Your task to perform on an android device: Open calendar and show me the second week of next month Image 0: 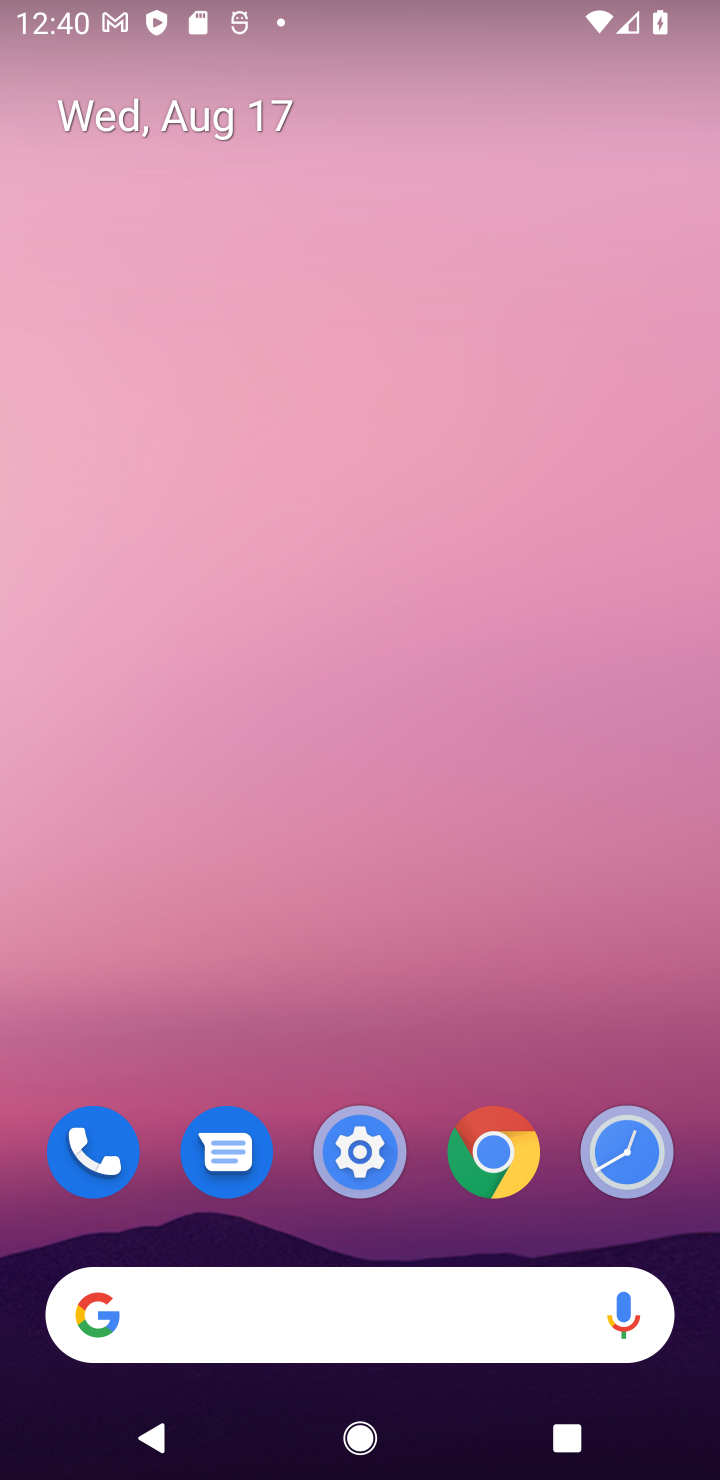
Step 0: drag from (683, 1235) to (383, 40)
Your task to perform on an android device: Open calendar and show me the second week of next month Image 1: 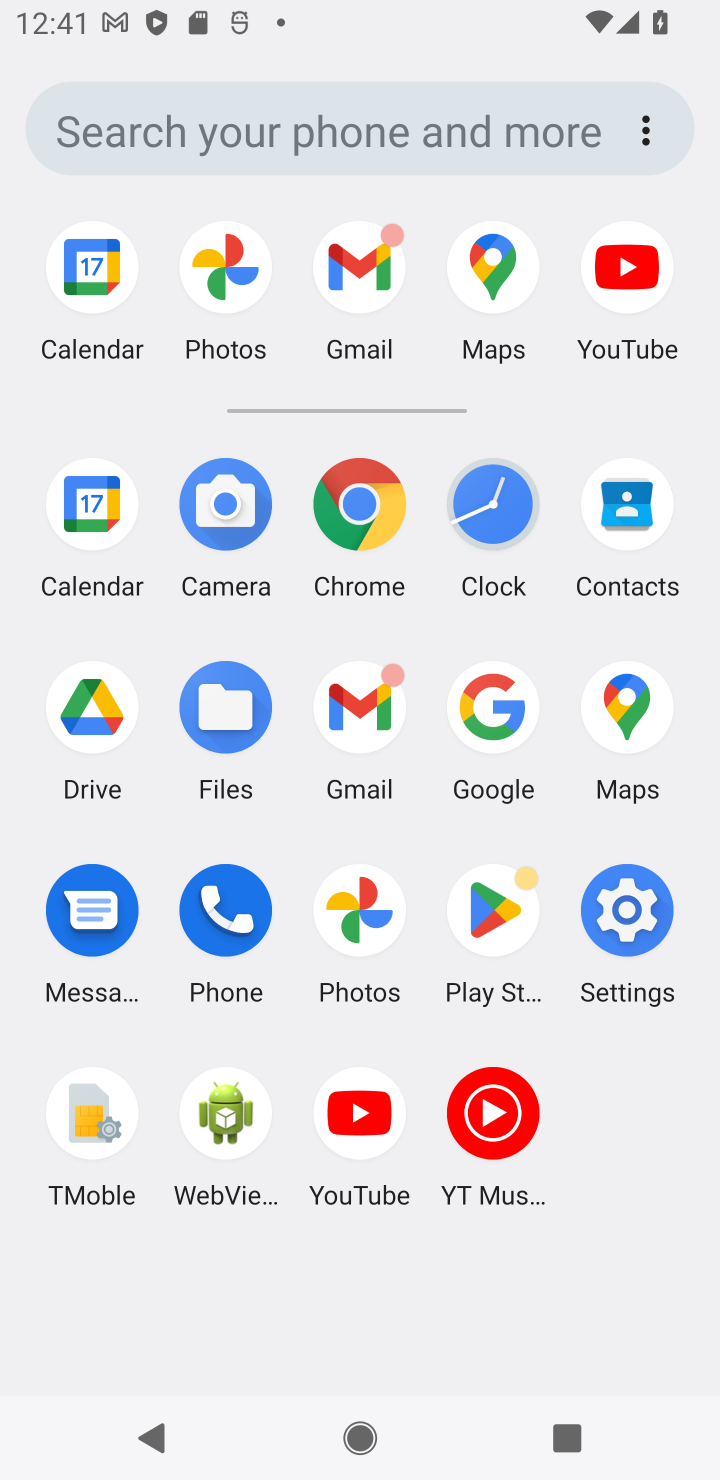
Step 1: click (77, 525)
Your task to perform on an android device: Open calendar and show me the second week of next month Image 2: 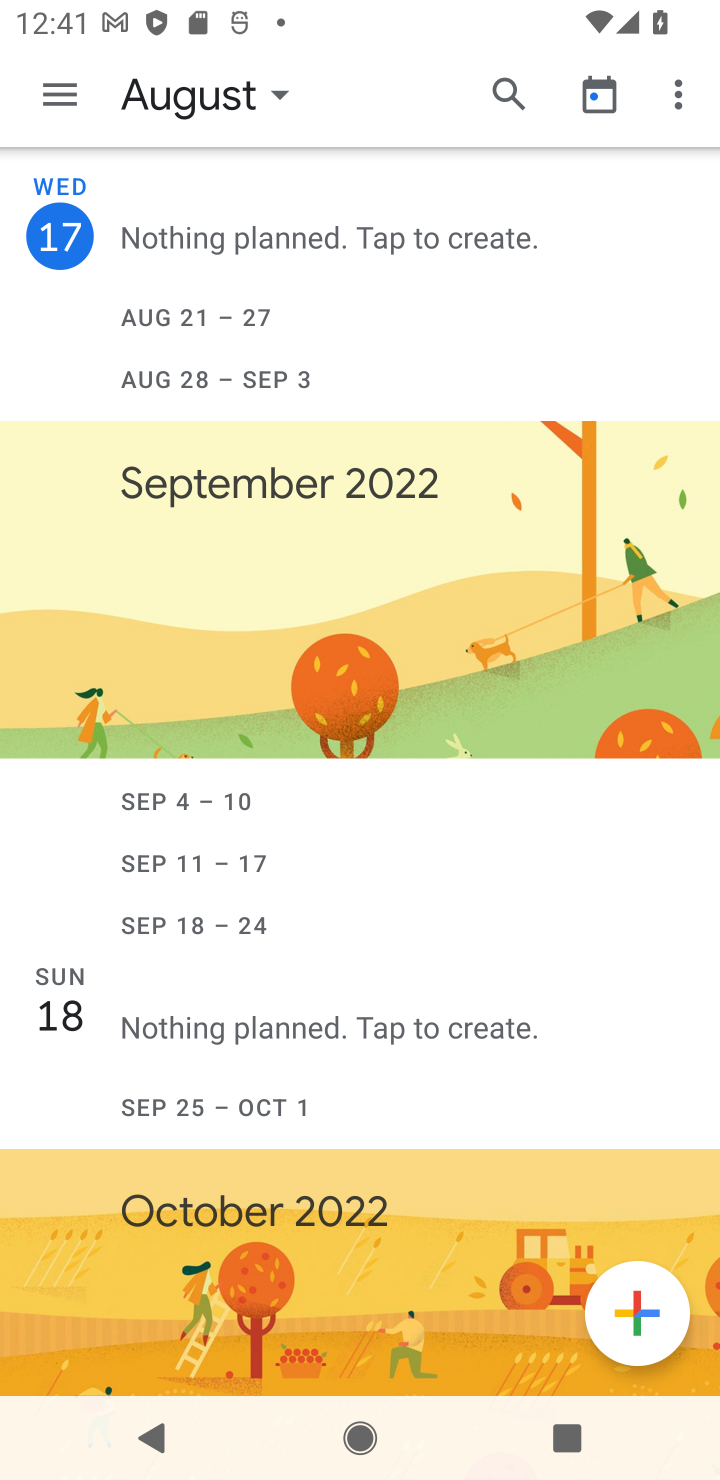
Step 2: click (188, 106)
Your task to perform on an android device: Open calendar and show me the second week of next month Image 3: 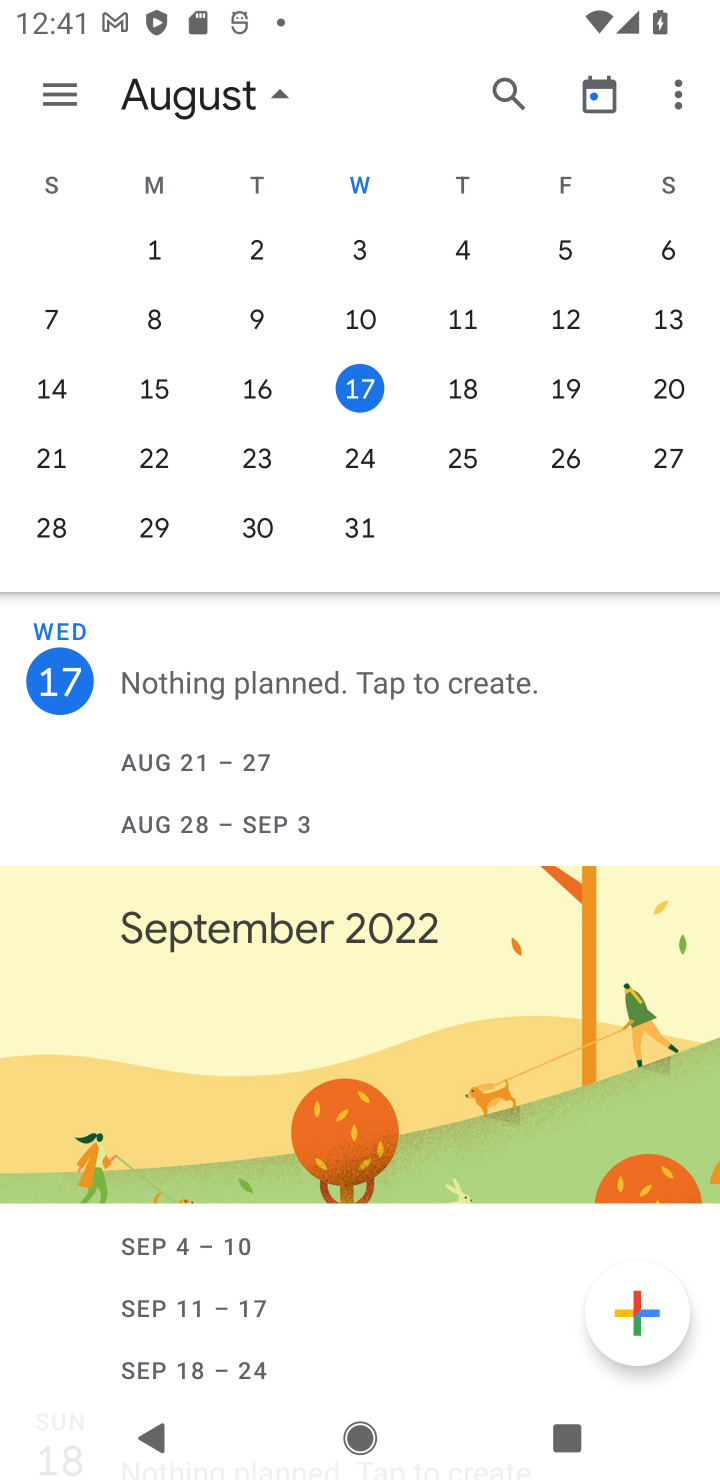
Step 3: drag from (655, 405) to (3, 421)
Your task to perform on an android device: Open calendar and show me the second week of next month Image 4: 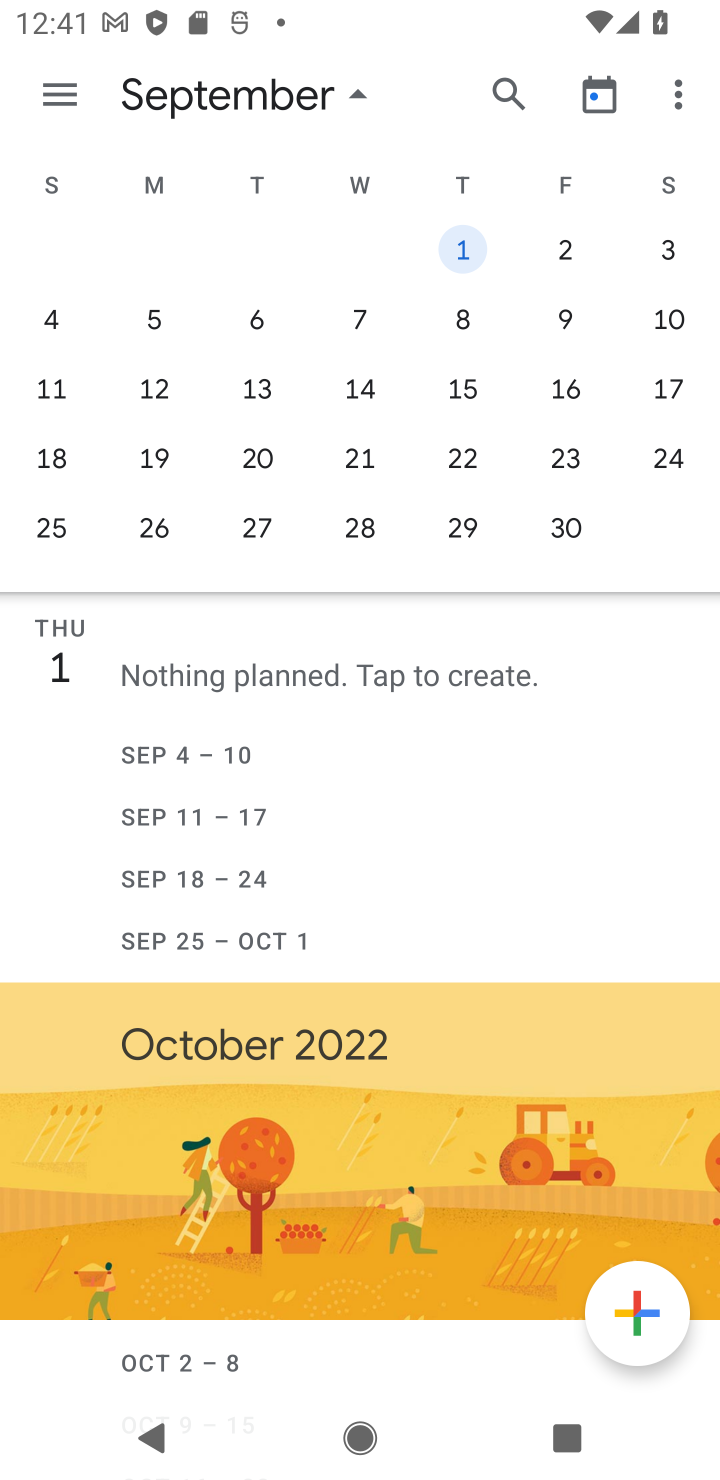
Step 4: click (54, 403)
Your task to perform on an android device: Open calendar and show me the second week of next month Image 5: 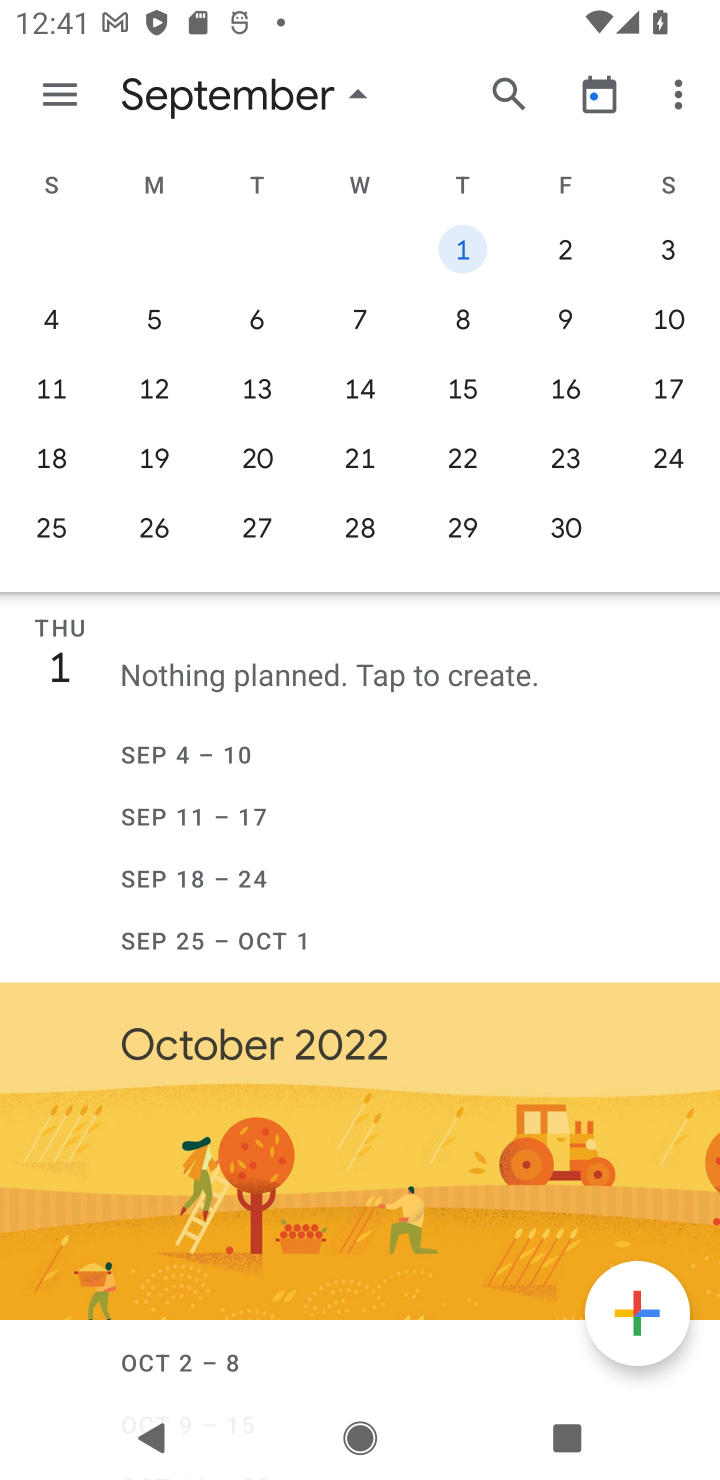
Step 5: click (42, 381)
Your task to perform on an android device: Open calendar and show me the second week of next month Image 6: 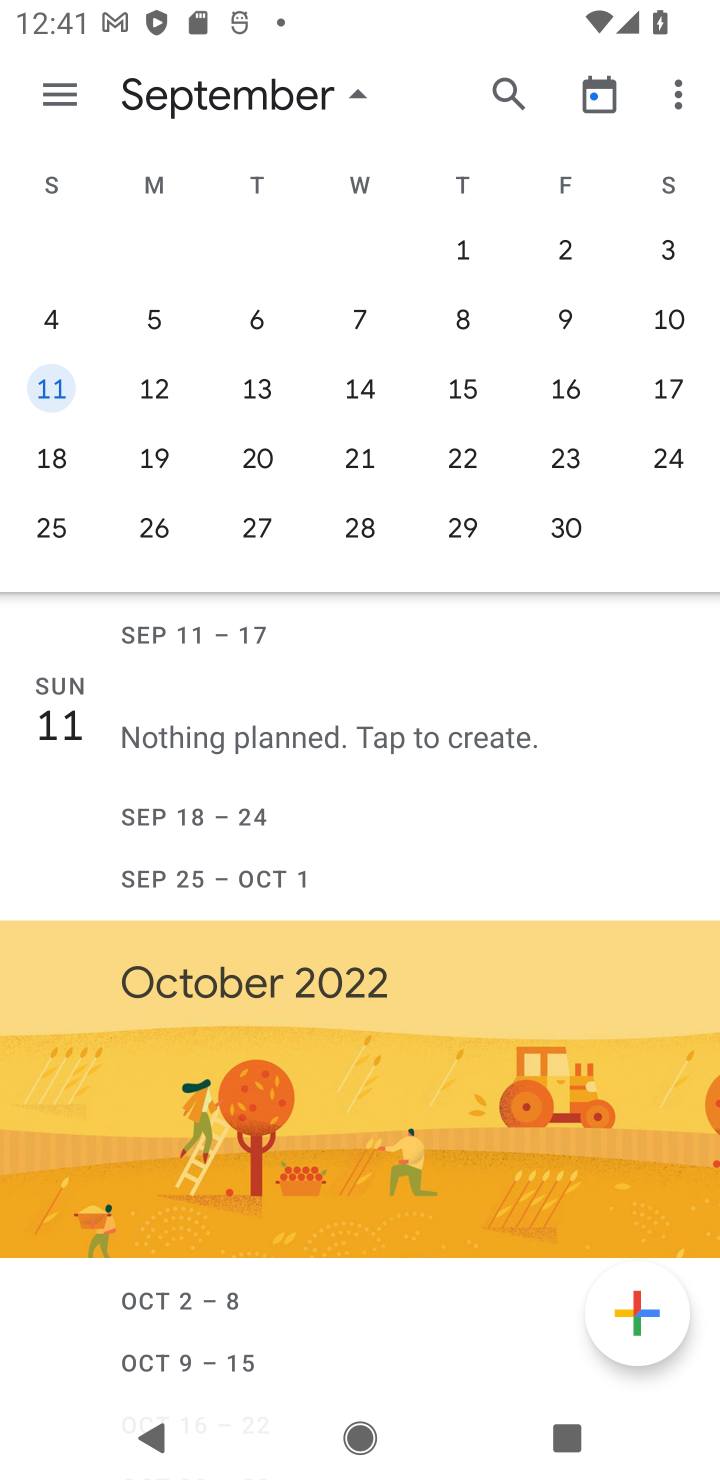
Step 6: task complete